Your task to perform on an android device: Open Maps and search for coffee Image 0: 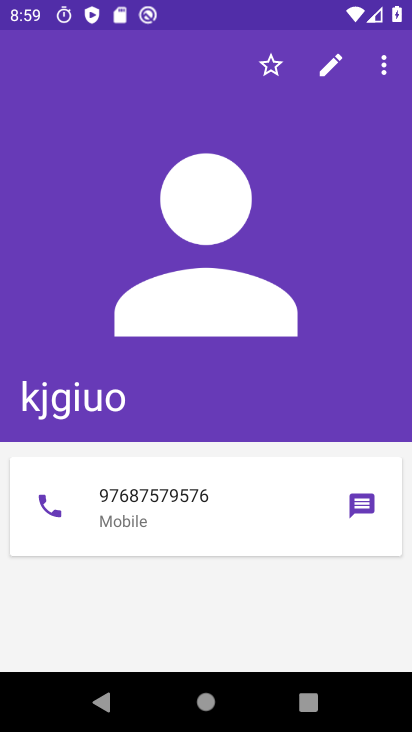
Step 0: press home button
Your task to perform on an android device: Open Maps and search for coffee Image 1: 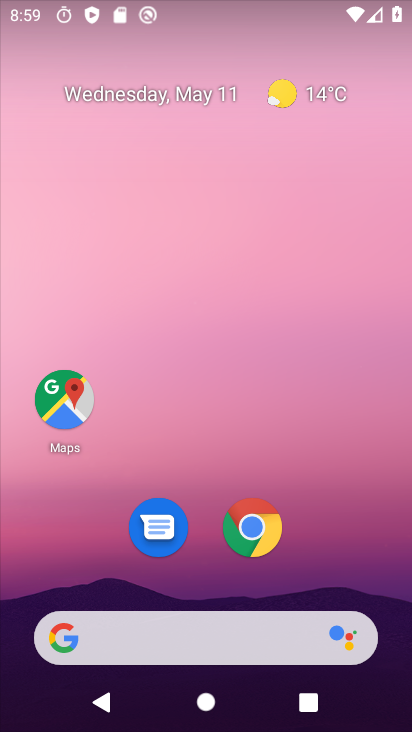
Step 1: drag from (258, 667) to (288, 193)
Your task to perform on an android device: Open Maps and search for coffee Image 2: 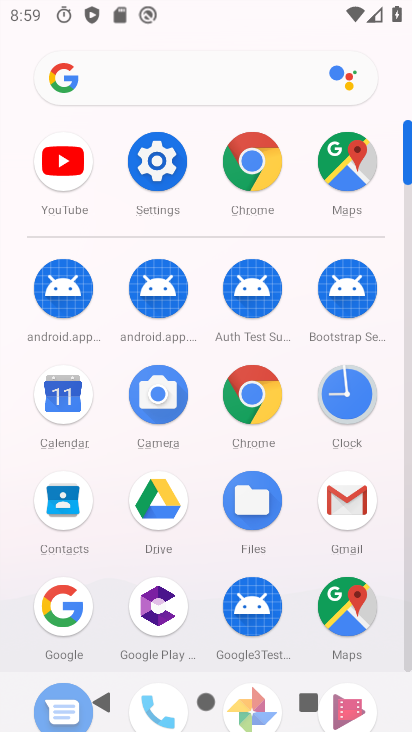
Step 2: click (356, 181)
Your task to perform on an android device: Open Maps and search for coffee Image 3: 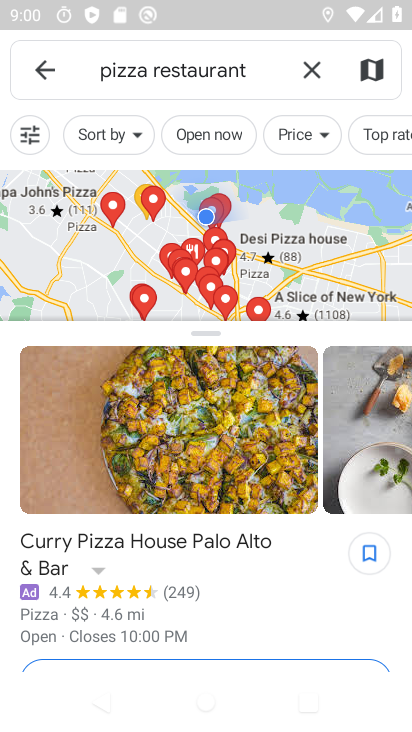
Step 3: click (313, 60)
Your task to perform on an android device: Open Maps and search for coffee Image 4: 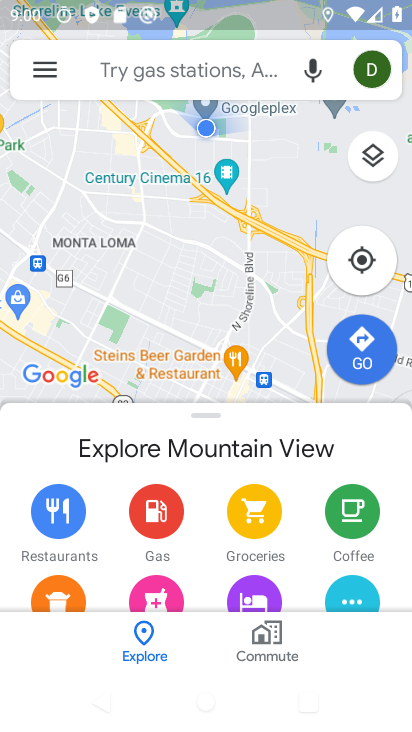
Step 4: click (214, 84)
Your task to perform on an android device: Open Maps and search for coffee Image 5: 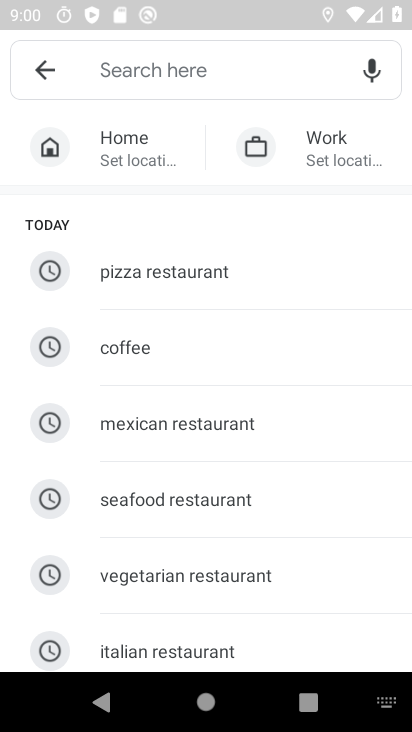
Step 5: click (175, 345)
Your task to perform on an android device: Open Maps and search for coffee Image 6: 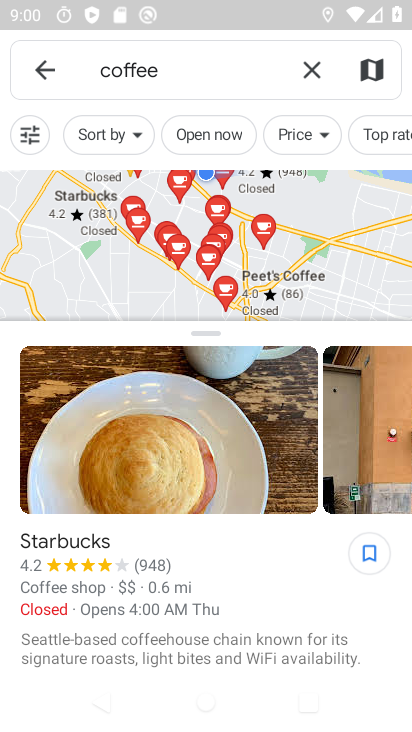
Step 6: task complete